Your task to perform on an android device: star an email in the gmail app Image 0: 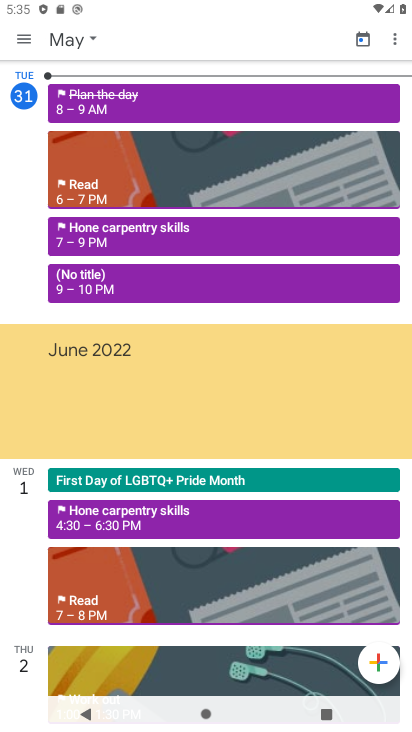
Step 0: press home button
Your task to perform on an android device: star an email in the gmail app Image 1: 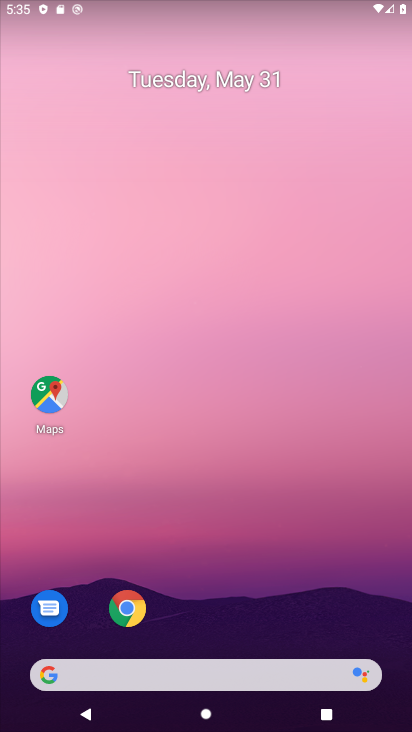
Step 1: drag from (209, 607) to (223, 263)
Your task to perform on an android device: star an email in the gmail app Image 2: 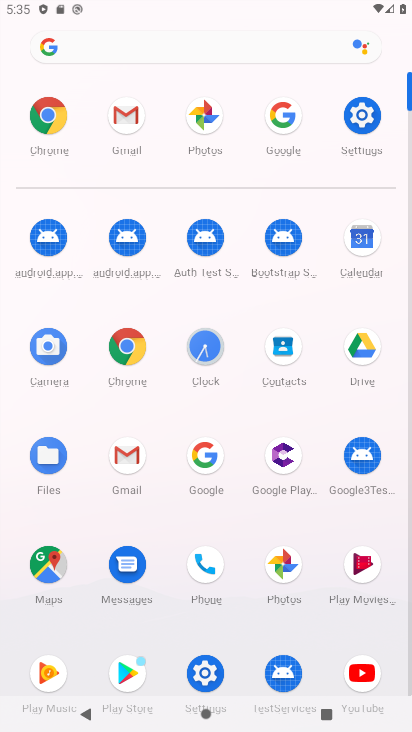
Step 2: click (137, 451)
Your task to perform on an android device: star an email in the gmail app Image 3: 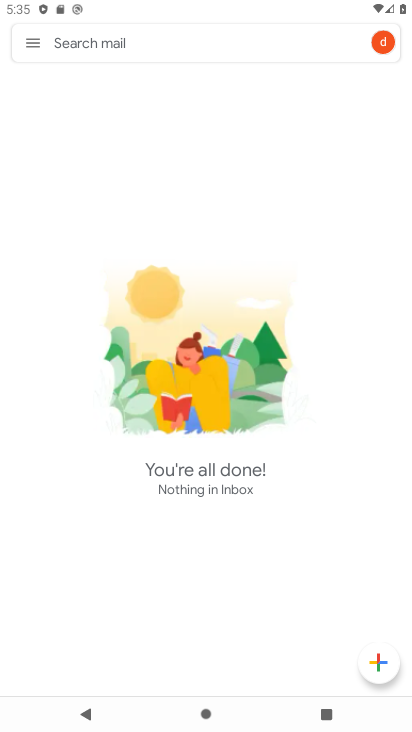
Step 3: task complete